Your task to perform on an android device: Open Amazon Image 0: 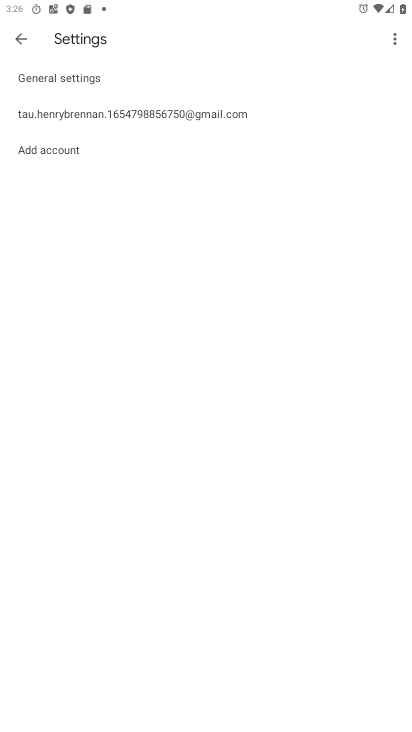
Step 0: press home button
Your task to perform on an android device: Open Amazon Image 1: 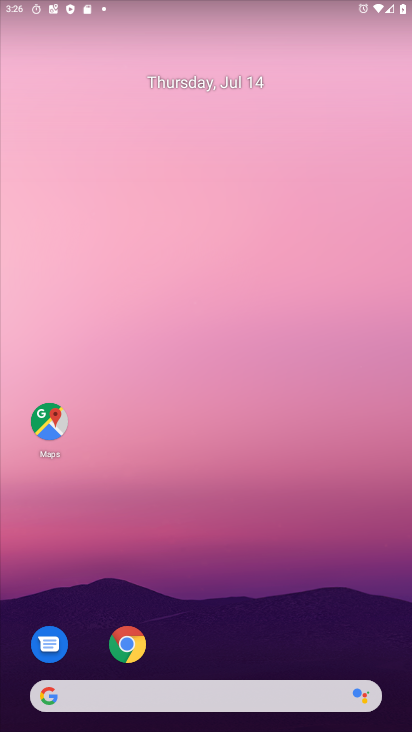
Step 1: click (89, 683)
Your task to perform on an android device: Open Amazon Image 2: 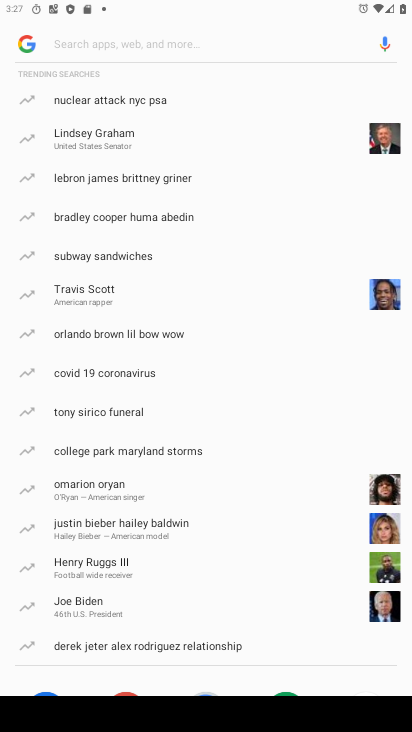
Step 2: type "Amazon"
Your task to perform on an android device: Open Amazon Image 3: 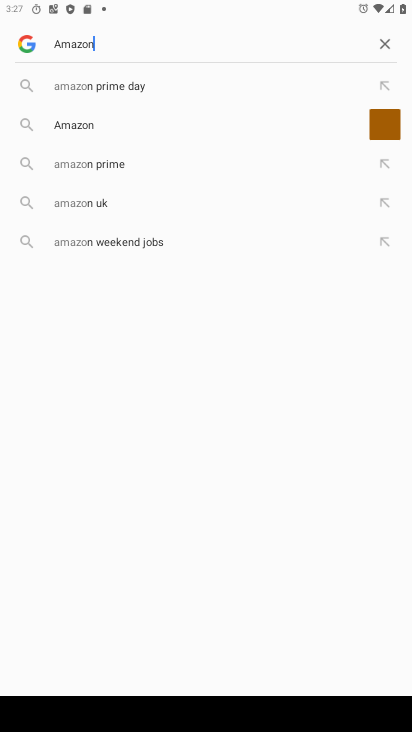
Step 3: type ""
Your task to perform on an android device: Open Amazon Image 4: 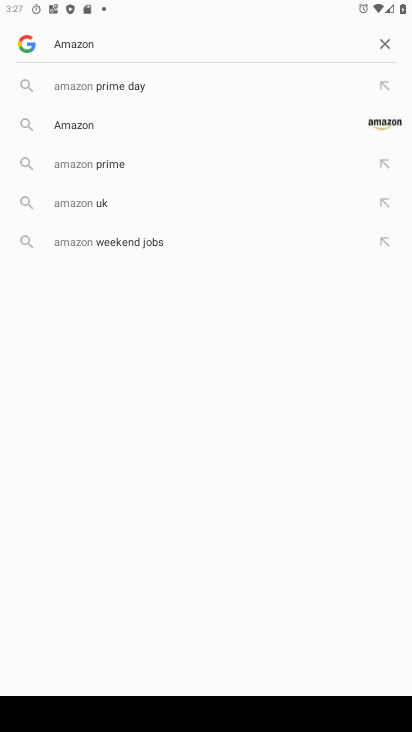
Step 4: click (92, 126)
Your task to perform on an android device: Open Amazon Image 5: 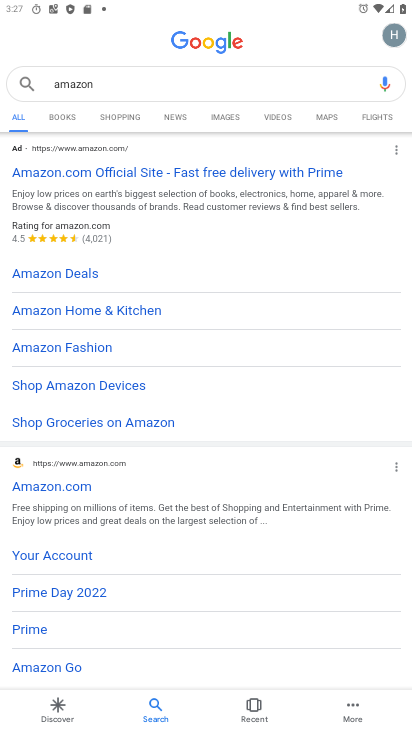
Step 5: task complete